Your task to perform on an android device: toggle notifications settings in the gmail app Image 0: 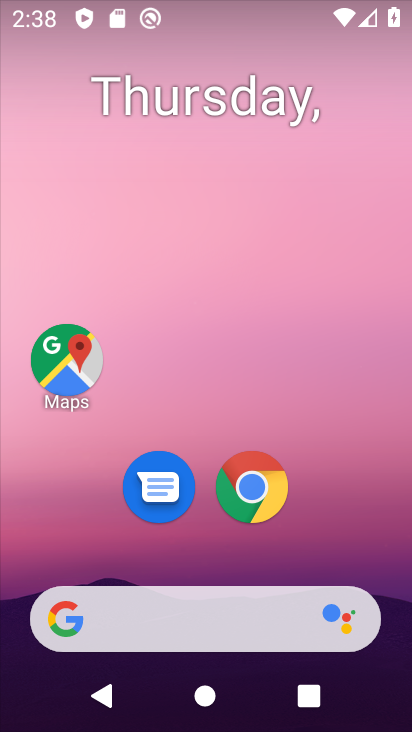
Step 0: drag from (341, 455) to (303, 0)
Your task to perform on an android device: toggle notifications settings in the gmail app Image 1: 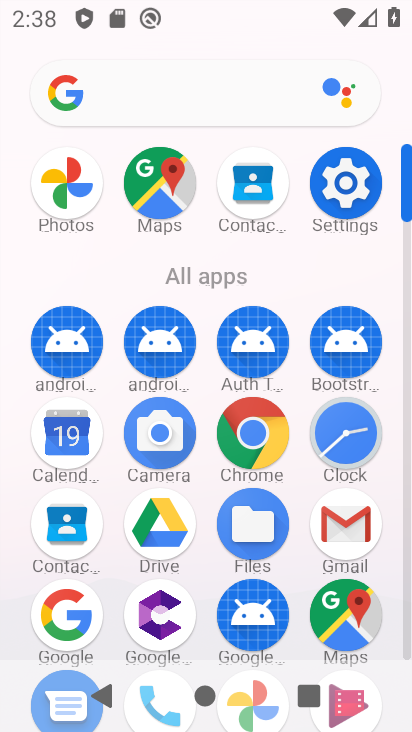
Step 1: click (354, 544)
Your task to perform on an android device: toggle notifications settings in the gmail app Image 2: 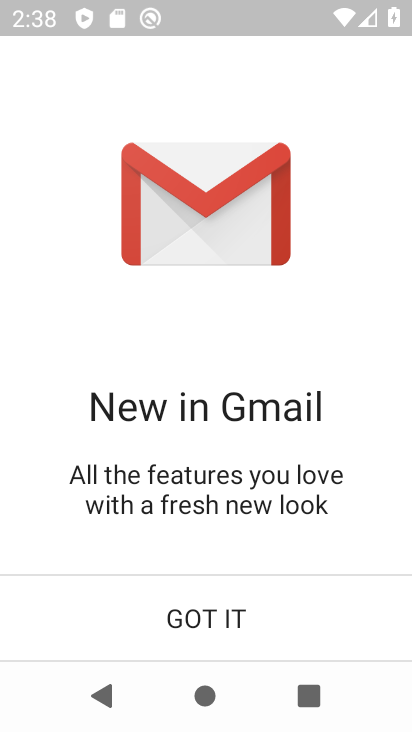
Step 2: click (223, 614)
Your task to perform on an android device: toggle notifications settings in the gmail app Image 3: 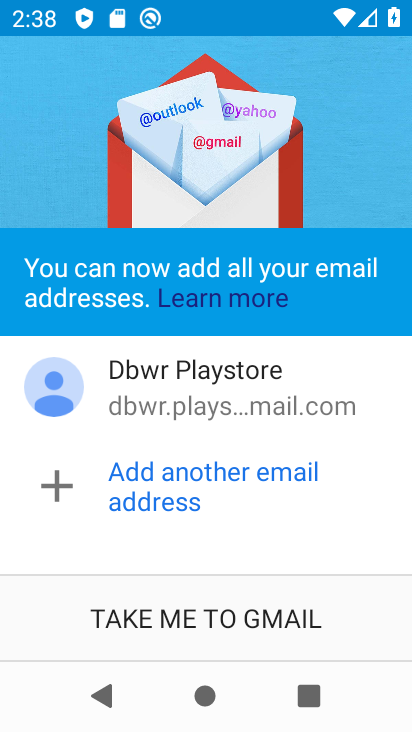
Step 3: drag from (227, 620) to (247, 698)
Your task to perform on an android device: toggle notifications settings in the gmail app Image 4: 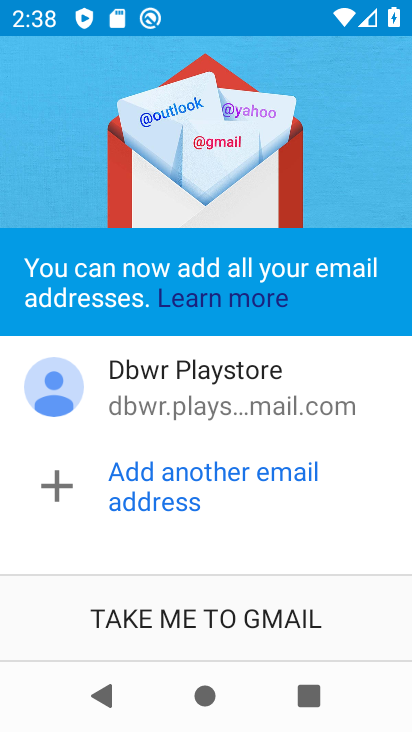
Step 4: click (222, 627)
Your task to perform on an android device: toggle notifications settings in the gmail app Image 5: 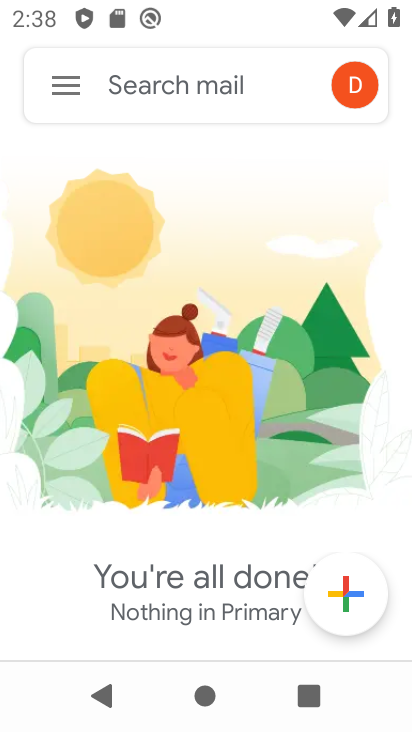
Step 5: click (48, 84)
Your task to perform on an android device: toggle notifications settings in the gmail app Image 6: 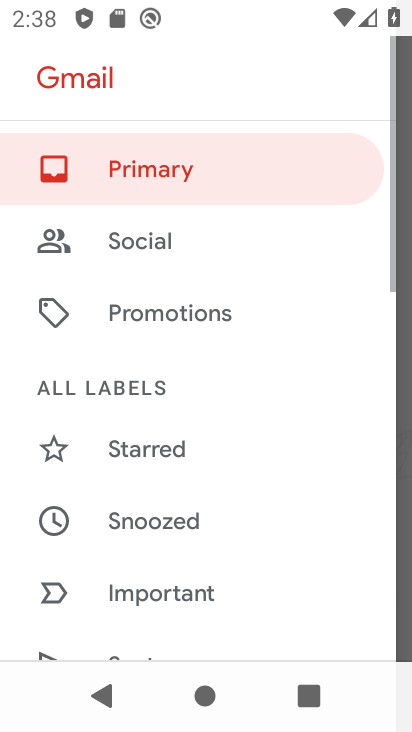
Step 6: drag from (212, 569) to (250, 128)
Your task to perform on an android device: toggle notifications settings in the gmail app Image 7: 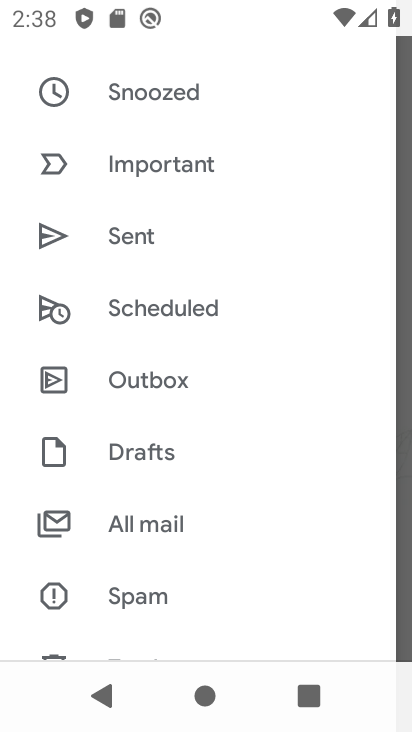
Step 7: drag from (244, 542) to (333, 110)
Your task to perform on an android device: toggle notifications settings in the gmail app Image 8: 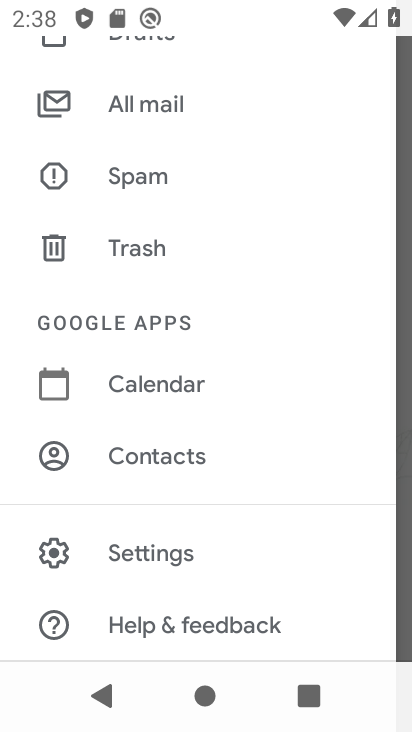
Step 8: click (181, 545)
Your task to perform on an android device: toggle notifications settings in the gmail app Image 9: 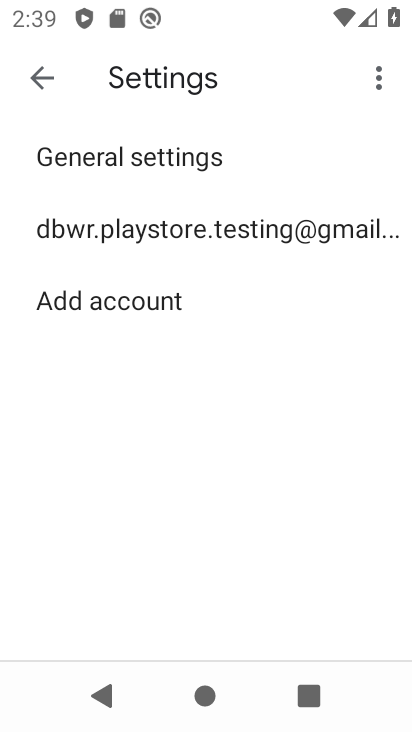
Step 9: click (171, 237)
Your task to perform on an android device: toggle notifications settings in the gmail app Image 10: 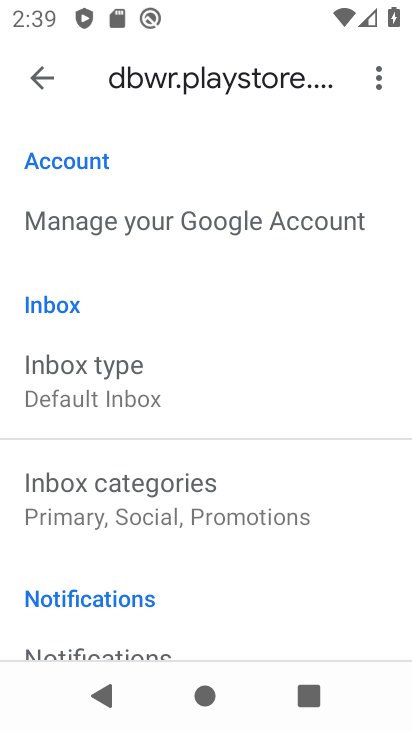
Step 10: drag from (206, 568) to (217, 163)
Your task to perform on an android device: toggle notifications settings in the gmail app Image 11: 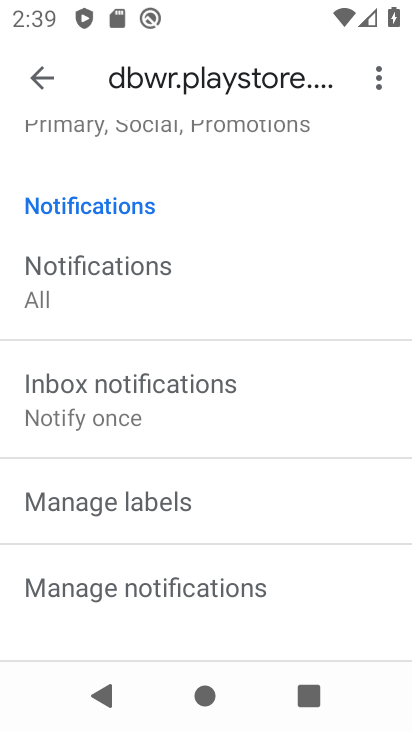
Step 11: click (88, 269)
Your task to perform on an android device: toggle notifications settings in the gmail app Image 12: 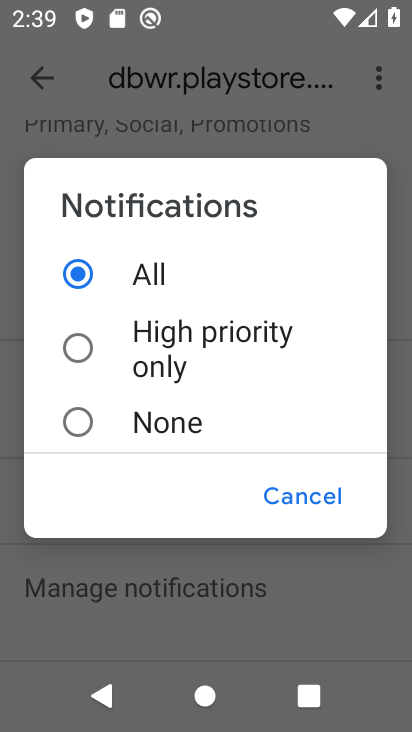
Step 12: drag from (327, 364) to (320, 143)
Your task to perform on an android device: toggle notifications settings in the gmail app Image 13: 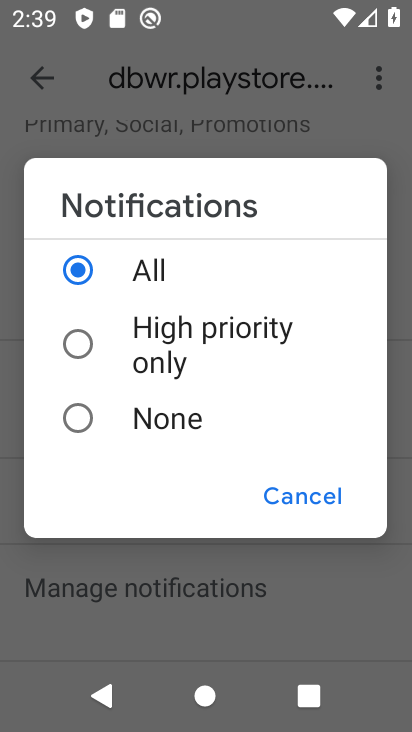
Step 13: click (97, 346)
Your task to perform on an android device: toggle notifications settings in the gmail app Image 14: 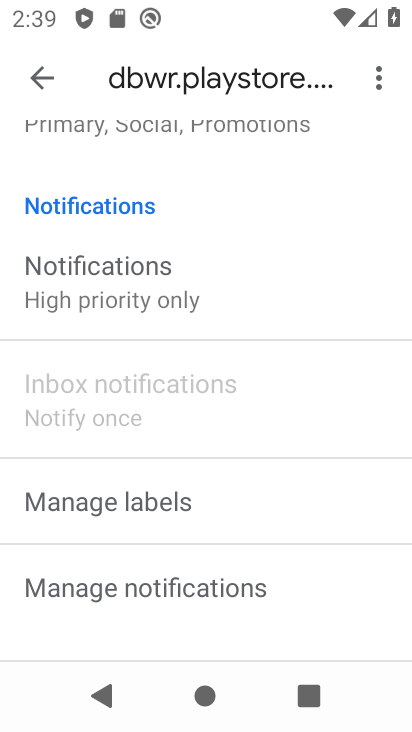
Step 14: task complete